Your task to perform on an android device: open sync settings in chrome Image 0: 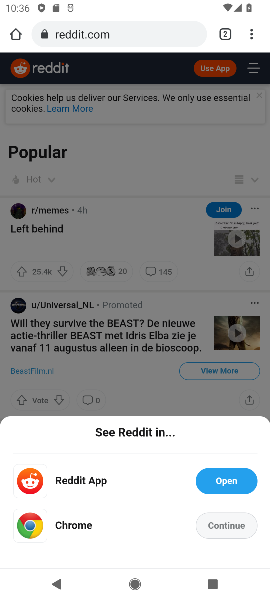
Step 0: press back button
Your task to perform on an android device: open sync settings in chrome Image 1: 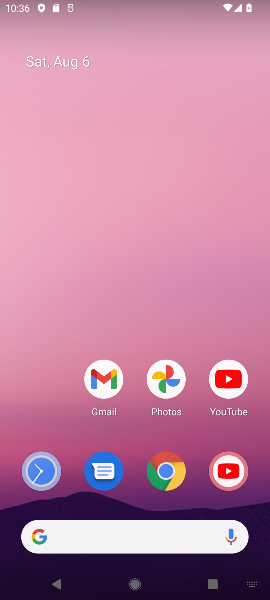
Step 1: press home button
Your task to perform on an android device: open sync settings in chrome Image 2: 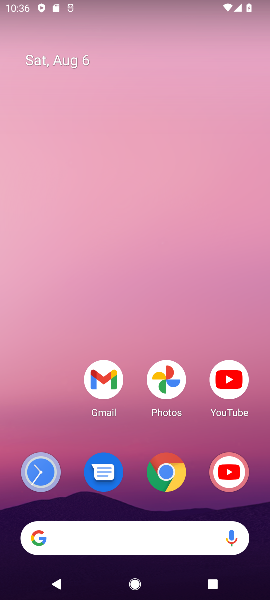
Step 2: drag from (186, 506) to (97, 9)
Your task to perform on an android device: open sync settings in chrome Image 3: 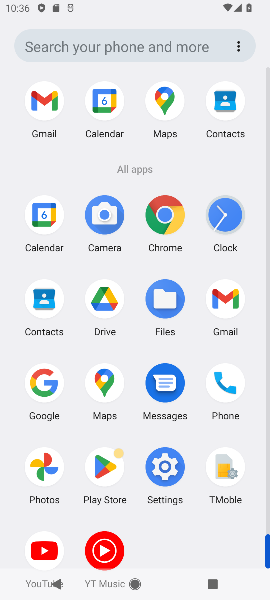
Step 3: click (158, 201)
Your task to perform on an android device: open sync settings in chrome Image 4: 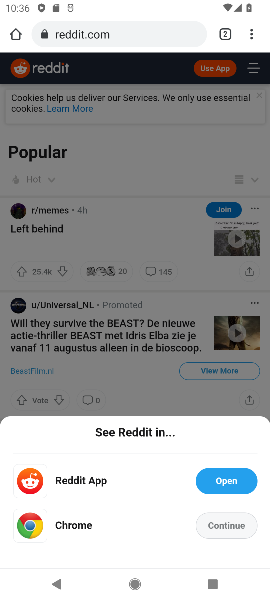
Step 4: drag from (247, 35) to (123, 407)
Your task to perform on an android device: open sync settings in chrome Image 5: 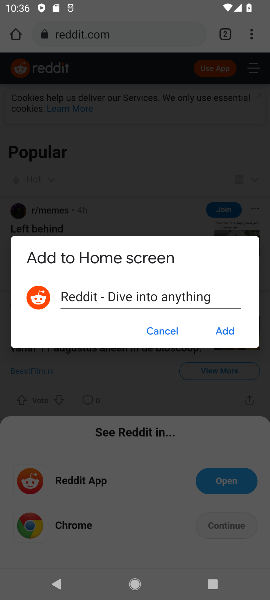
Step 5: click (164, 331)
Your task to perform on an android device: open sync settings in chrome Image 6: 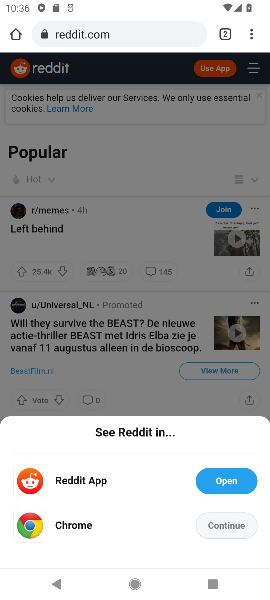
Step 6: drag from (253, 34) to (155, 480)
Your task to perform on an android device: open sync settings in chrome Image 7: 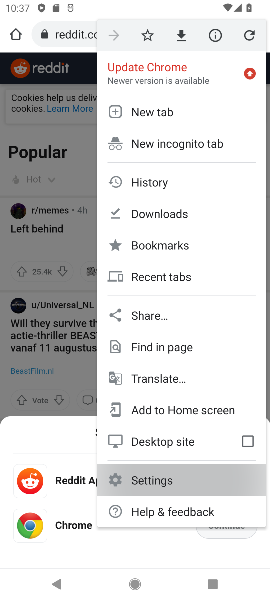
Step 7: click (161, 492)
Your task to perform on an android device: open sync settings in chrome Image 8: 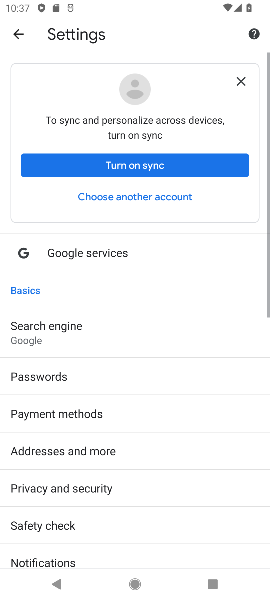
Step 8: drag from (110, 479) to (144, 95)
Your task to perform on an android device: open sync settings in chrome Image 9: 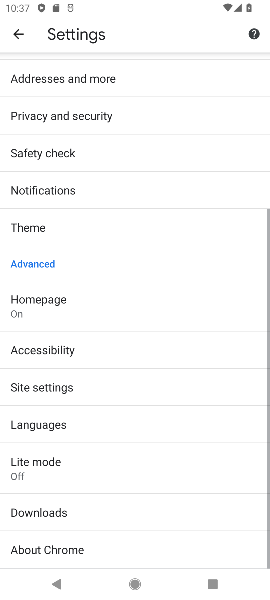
Step 9: drag from (155, 377) to (132, 156)
Your task to perform on an android device: open sync settings in chrome Image 10: 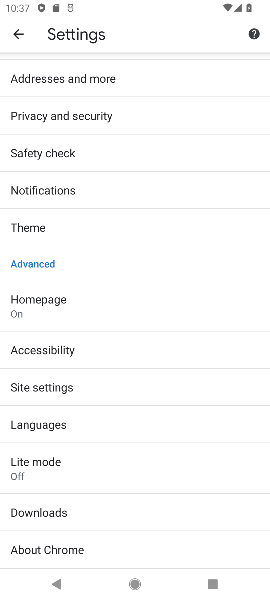
Step 10: click (35, 387)
Your task to perform on an android device: open sync settings in chrome Image 11: 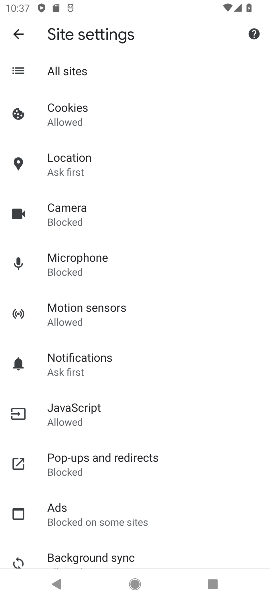
Step 11: click (79, 552)
Your task to perform on an android device: open sync settings in chrome Image 12: 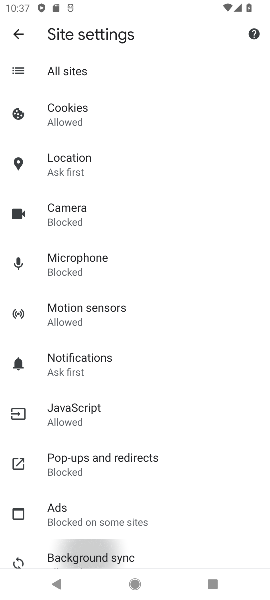
Step 12: click (84, 558)
Your task to perform on an android device: open sync settings in chrome Image 13: 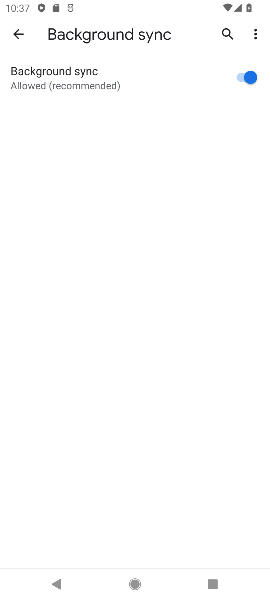
Step 13: task complete